Your task to perform on an android device: open app "Clock" (install if not already installed) Image 0: 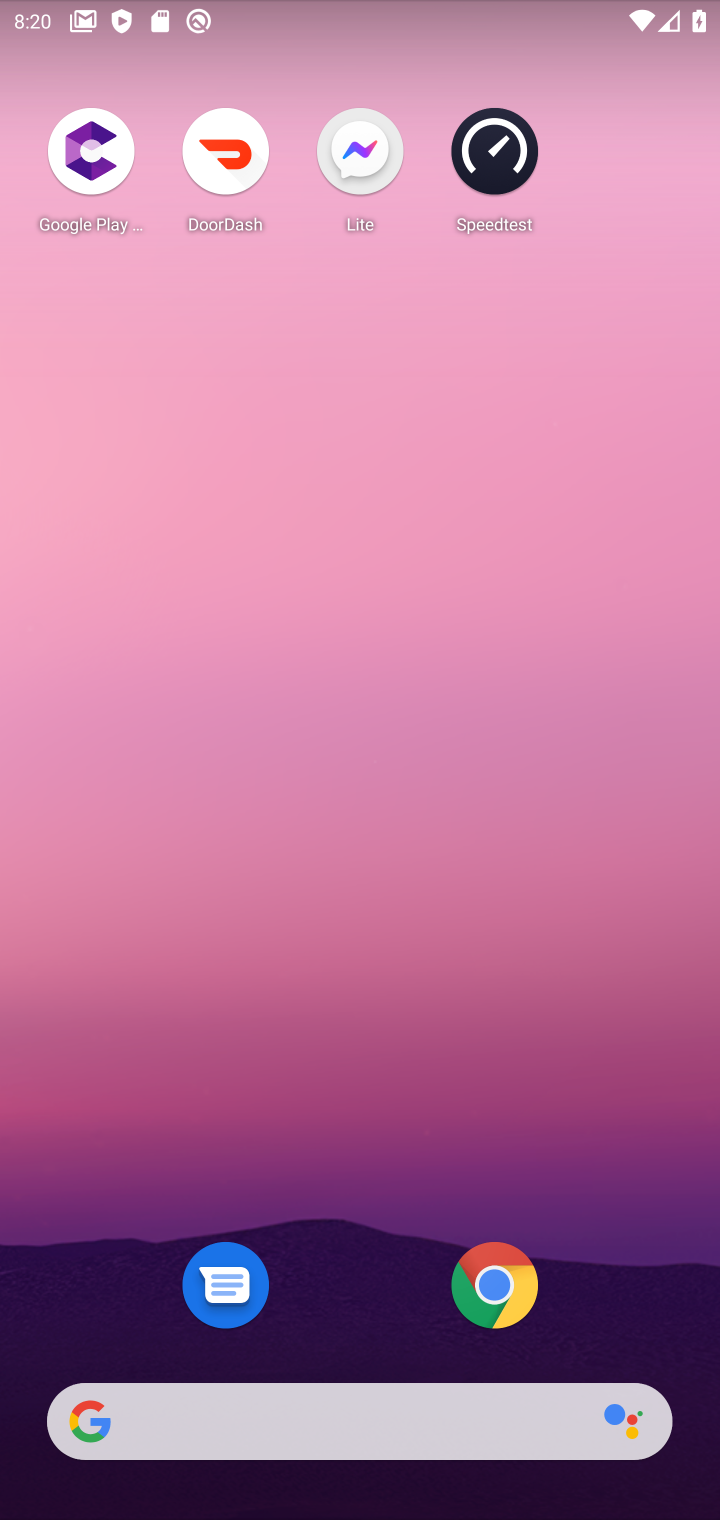
Step 0: drag from (355, 1393) to (512, 405)
Your task to perform on an android device: open app "Clock" (install if not already installed) Image 1: 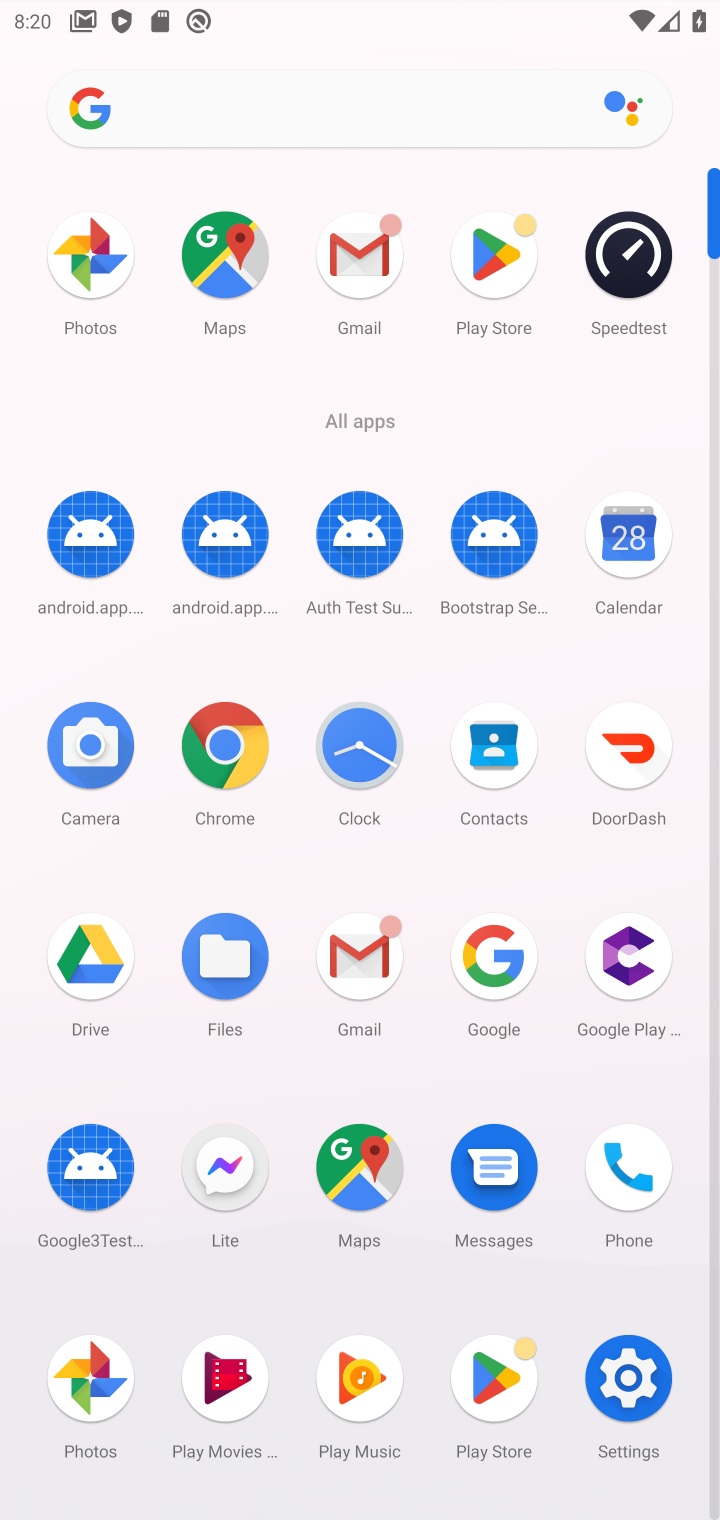
Step 1: click (477, 1420)
Your task to perform on an android device: open app "Clock" (install if not already installed) Image 2: 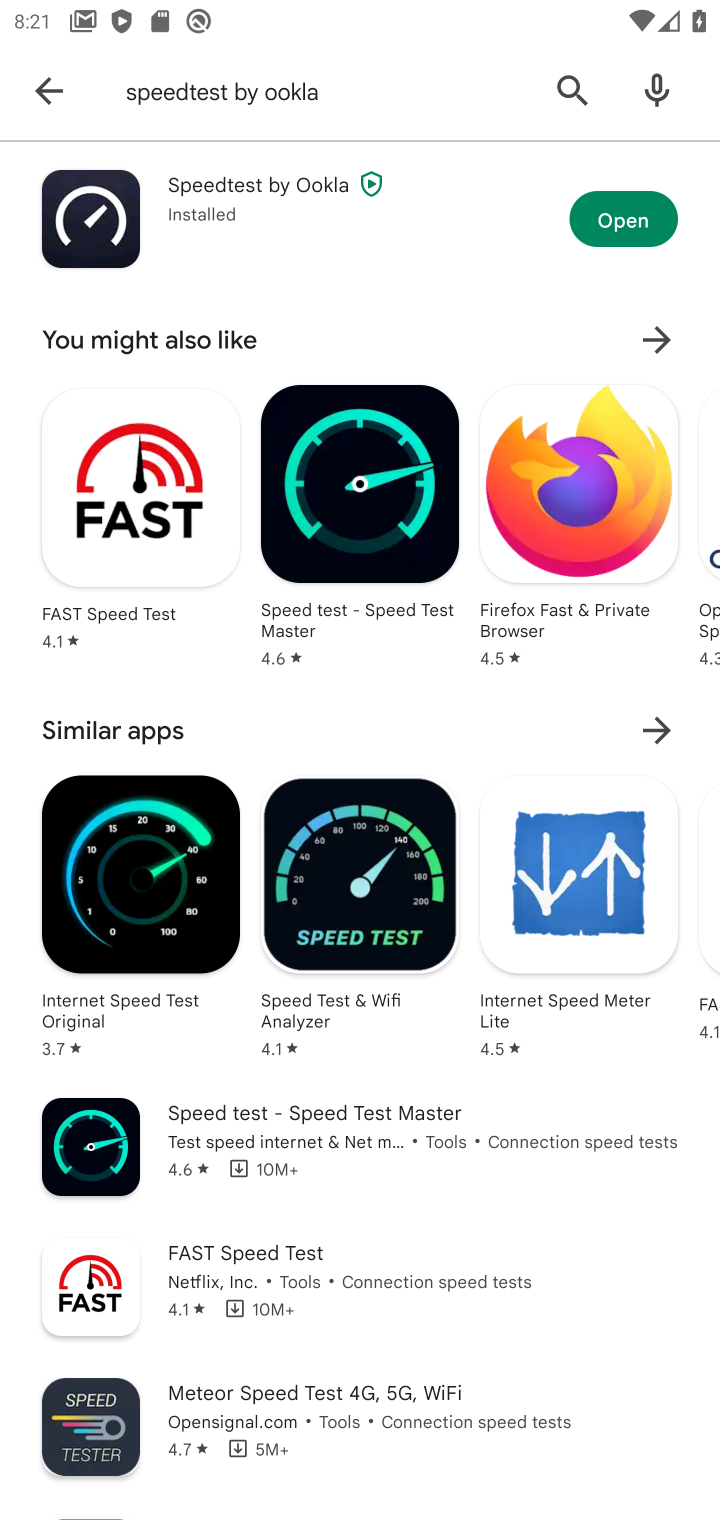
Step 2: click (564, 81)
Your task to perform on an android device: open app "Clock" (install if not already installed) Image 3: 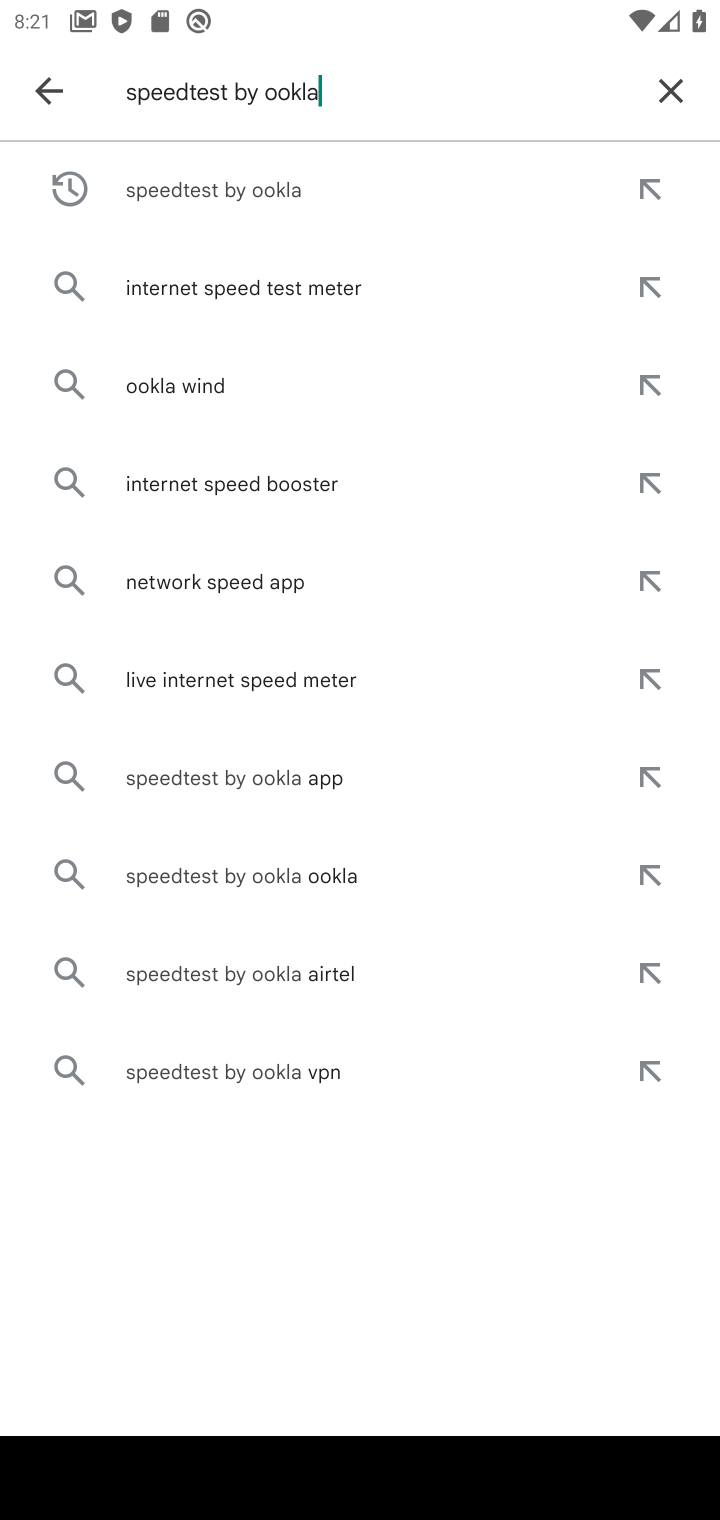
Step 3: click (672, 93)
Your task to perform on an android device: open app "Clock" (install if not already installed) Image 4: 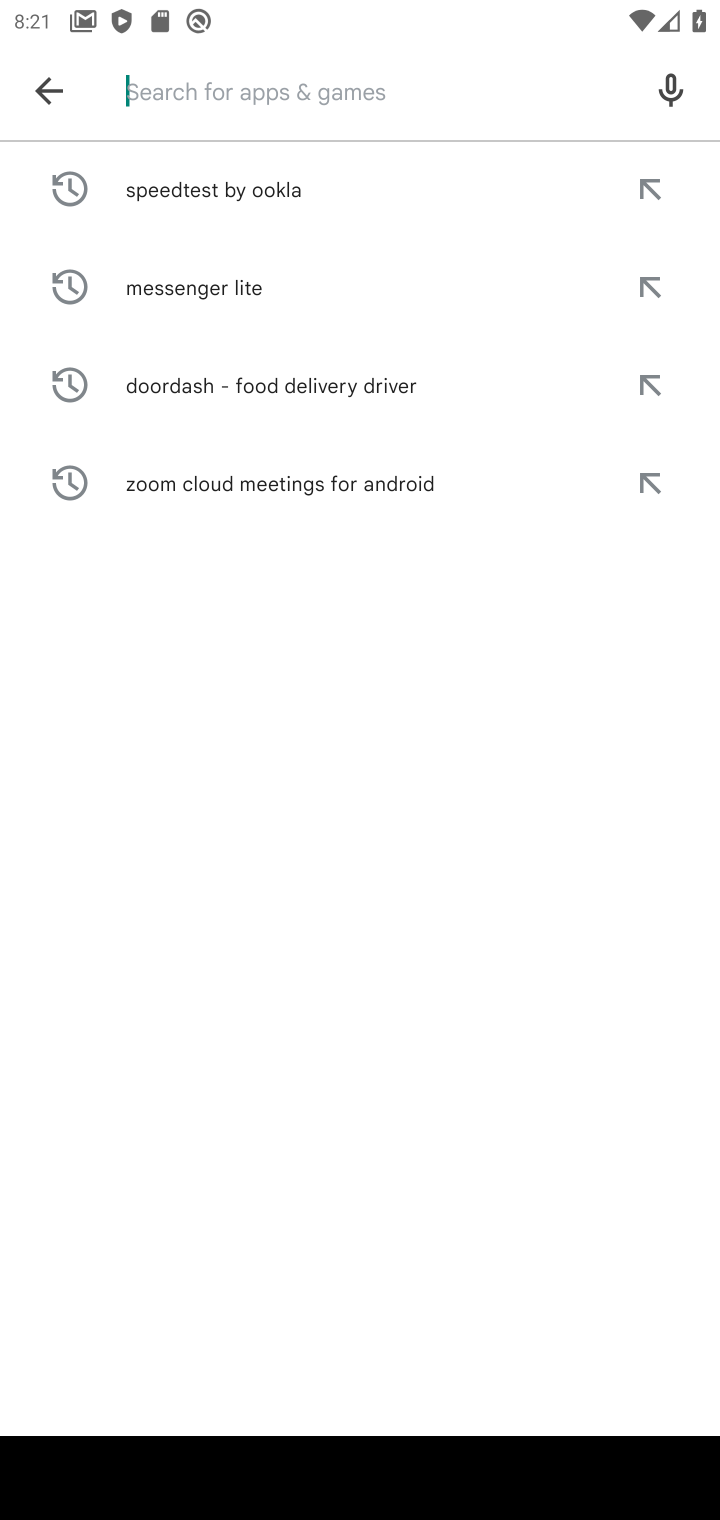
Step 4: type "clock"
Your task to perform on an android device: open app "Clock" (install if not already installed) Image 5: 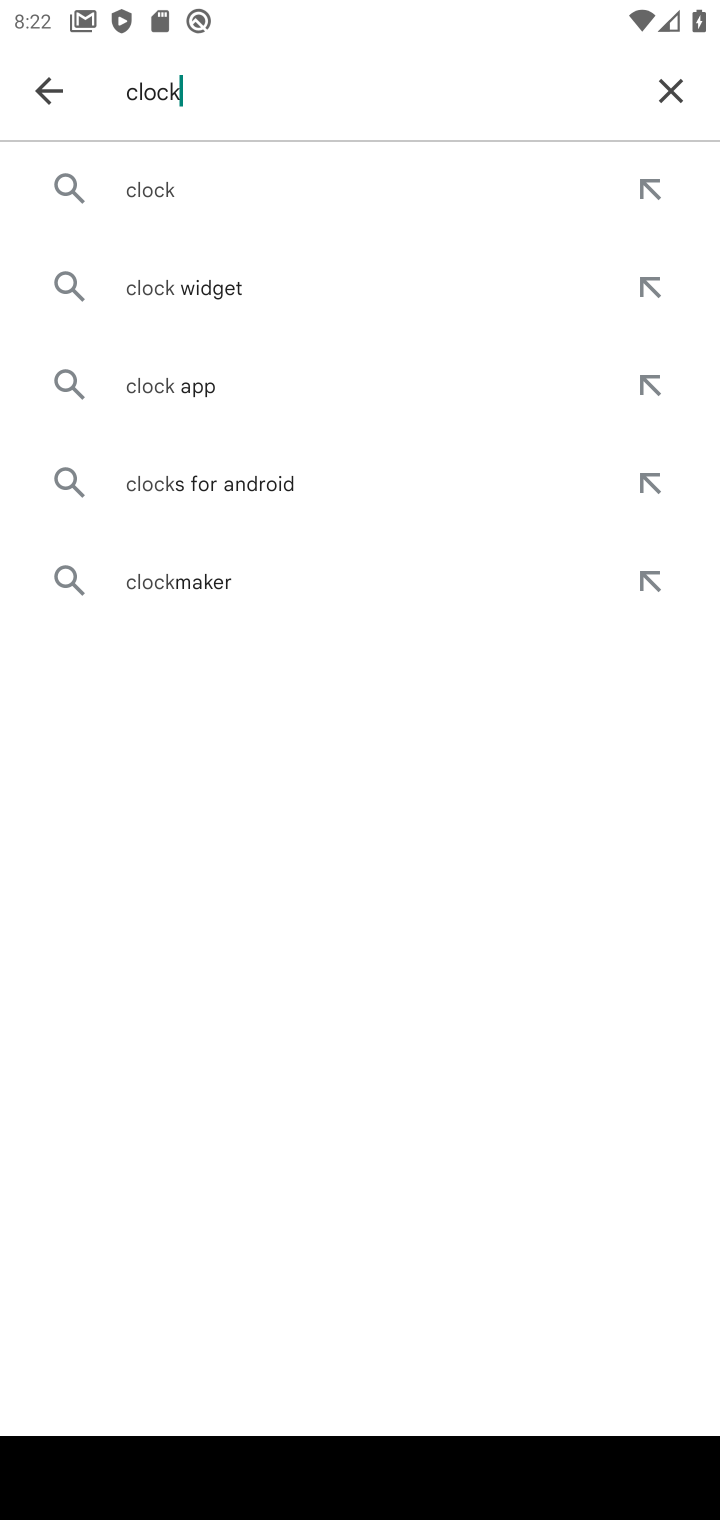
Step 5: click (167, 190)
Your task to perform on an android device: open app "Clock" (install if not already installed) Image 6: 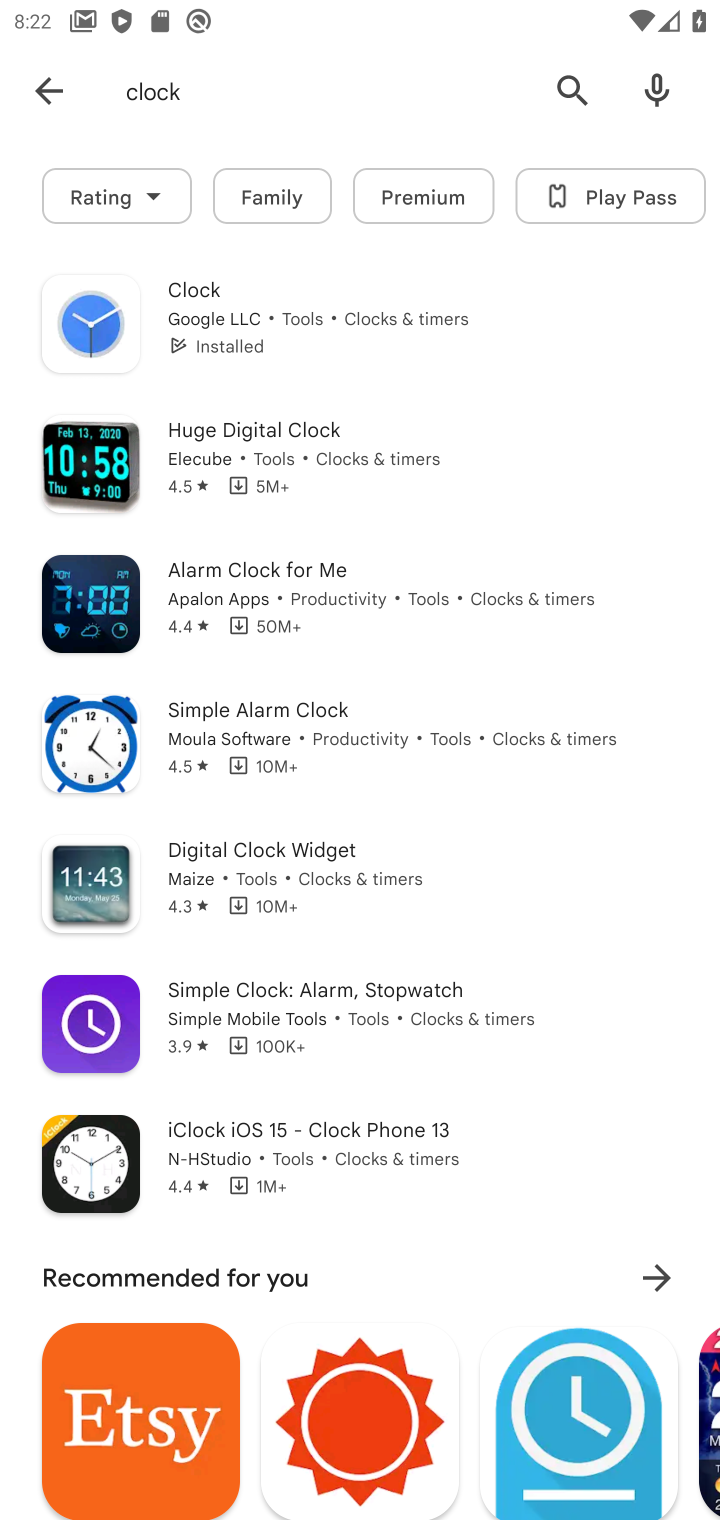
Step 6: click (192, 327)
Your task to perform on an android device: open app "Clock" (install if not already installed) Image 7: 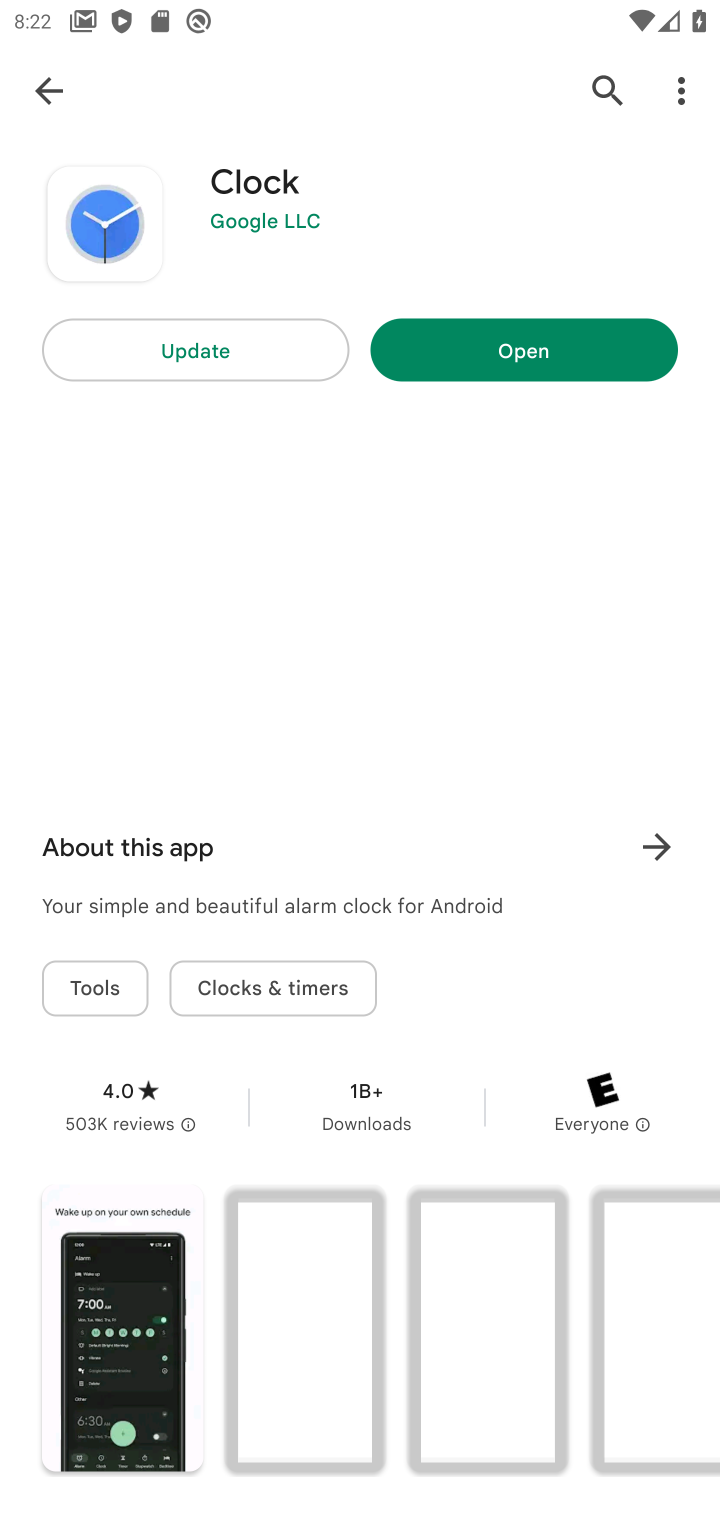
Step 7: click (544, 363)
Your task to perform on an android device: open app "Clock" (install if not already installed) Image 8: 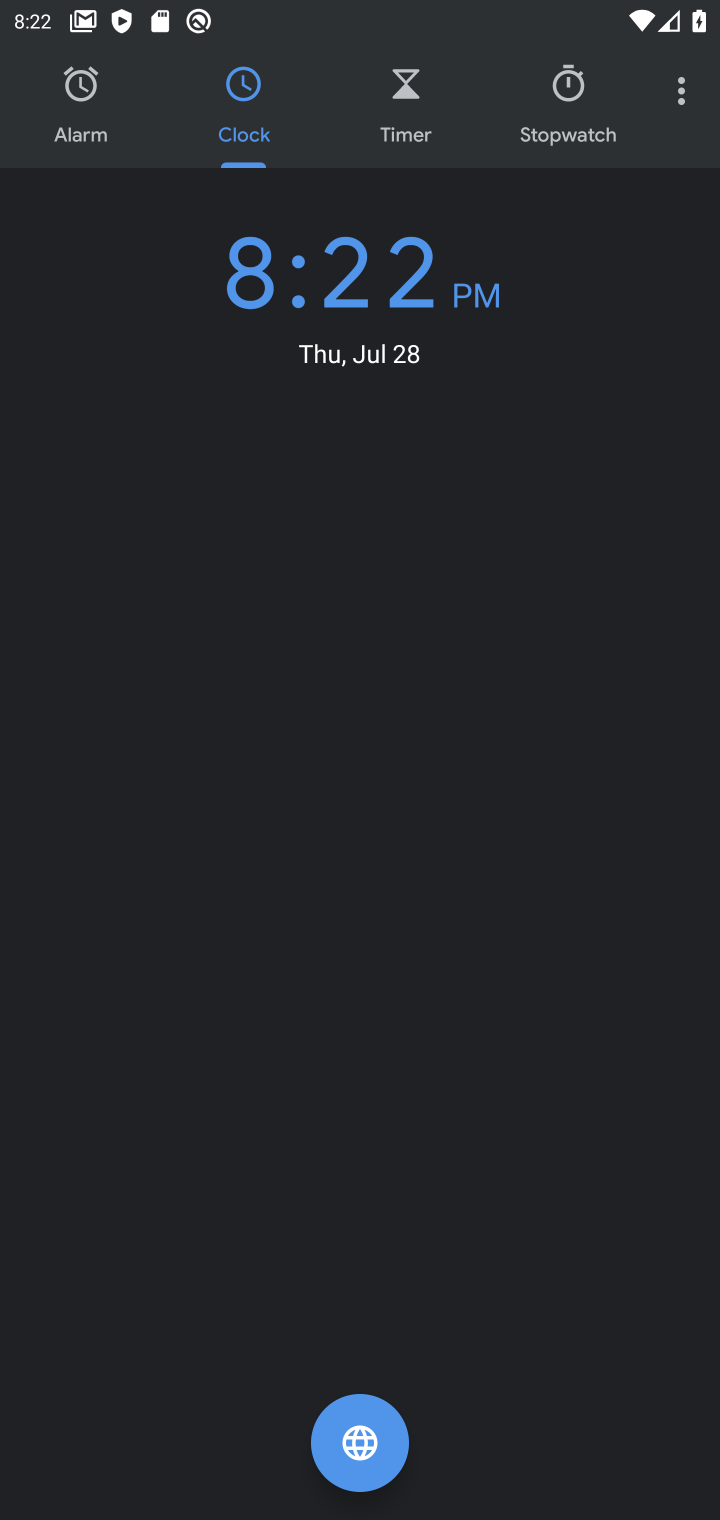
Step 8: task complete